Your task to perform on an android device: Go to privacy settings Image 0: 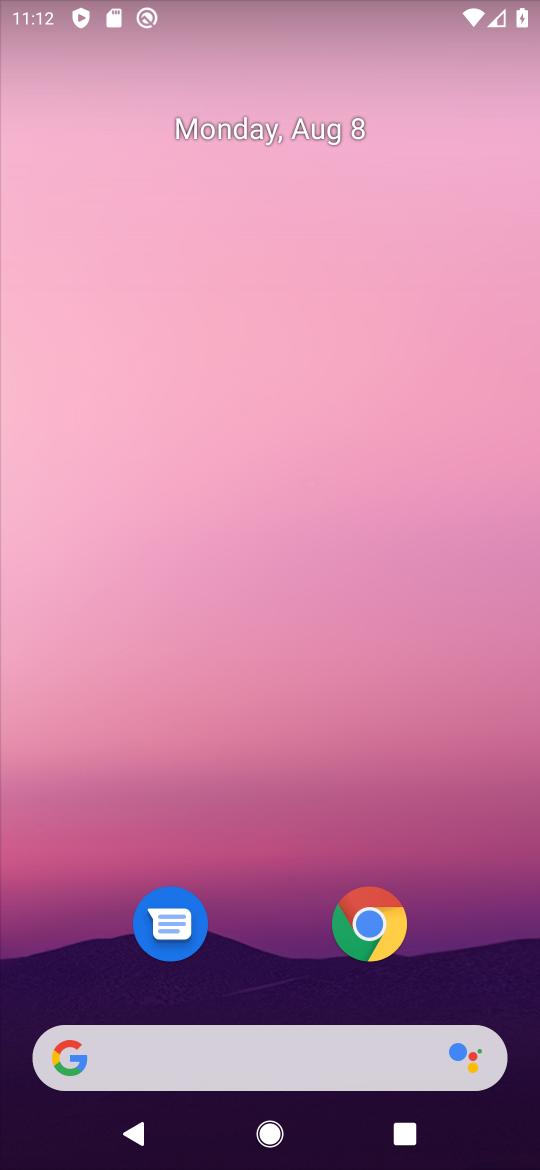
Step 0: drag from (308, 1014) to (186, 125)
Your task to perform on an android device: Go to privacy settings Image 1: 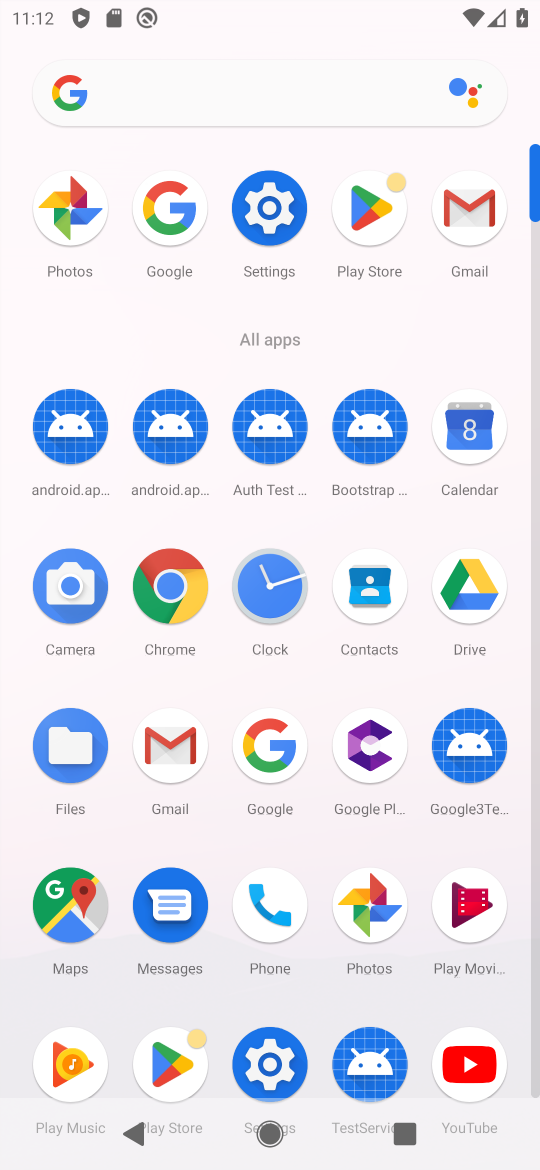
Step 1: click (252, 218)
Your task to perform on an android device: Go to privacy settings Image 2: 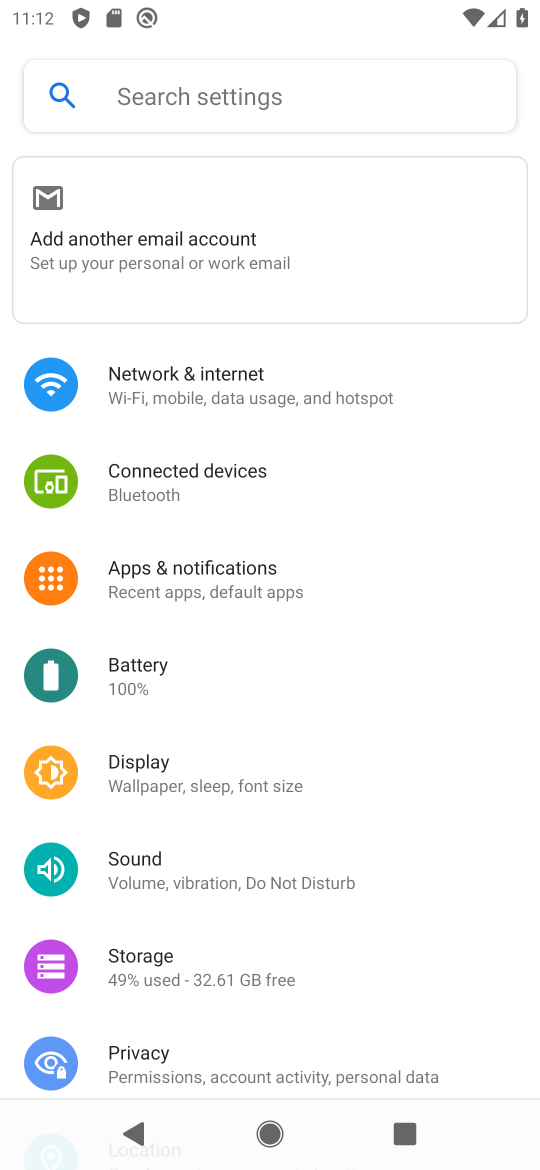
Step 2: click (125, 1043)
Your task to perform on an android device: Go to privacy settings Image 3: 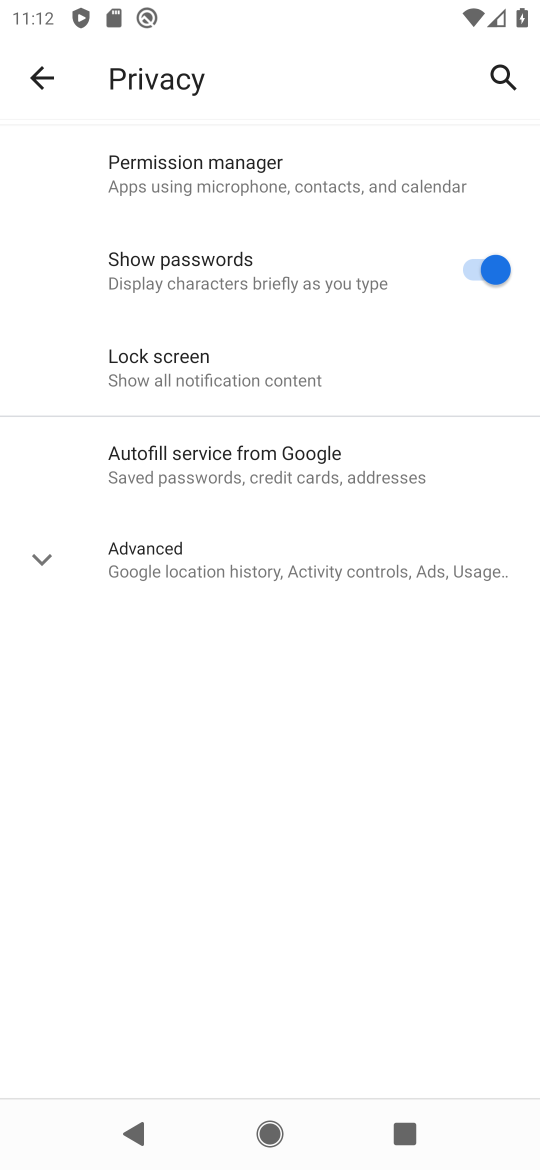
Step 3: task complete